Your task to perform on an android device: Go to battery settings Image 0: 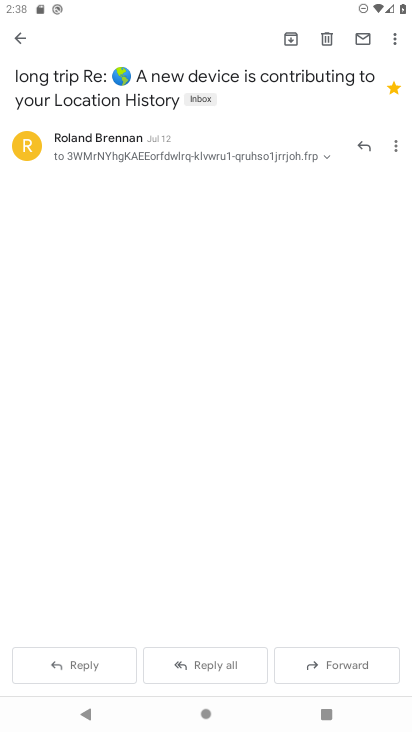
Step 0: click (203, 716)
Your task to perform on an android device: Go to battery settings Image 1: 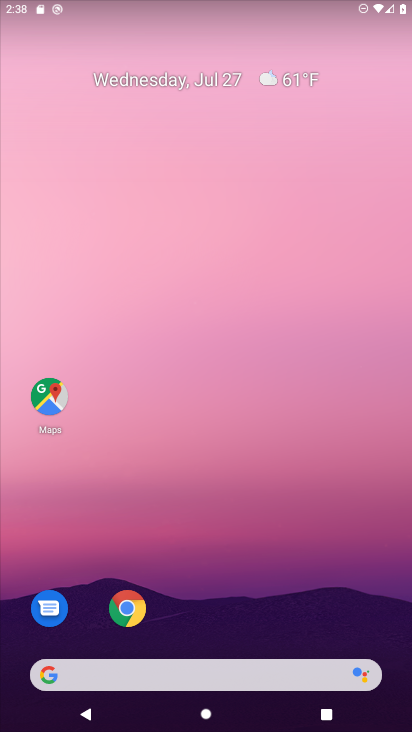
Step 1: drag from (228, 603) to (254, 532)
Your task to perform on an android device: Go to battery settings Image 2: 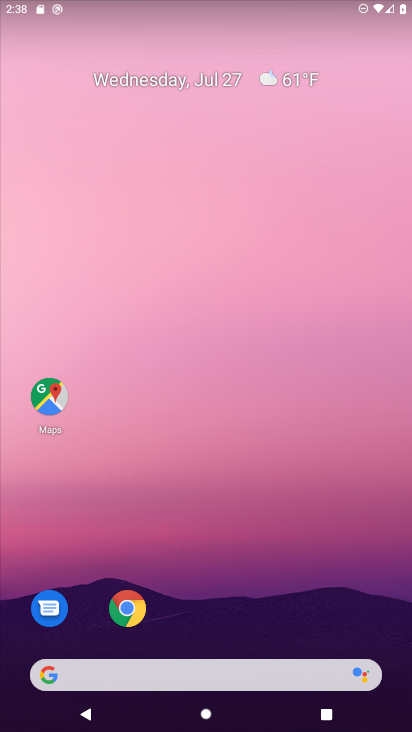
Step 2: drag from (203, 632) to (115, 239)
Your task to perform on an android device: Go to battery settings Image 3: 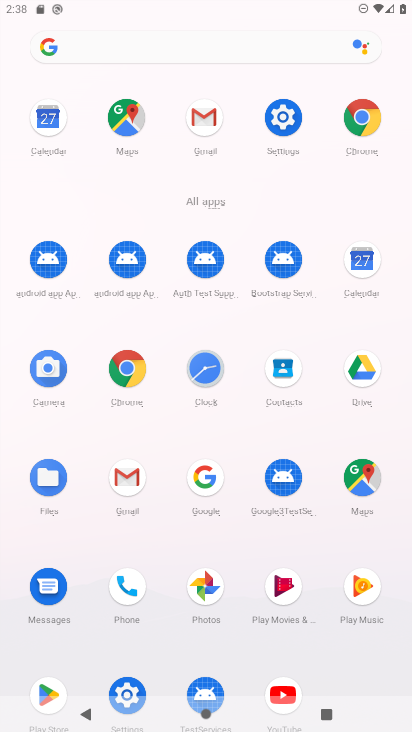
Step 3: click (275, 118)
Your task to perform on an android device: Go to battery settings Image 4: 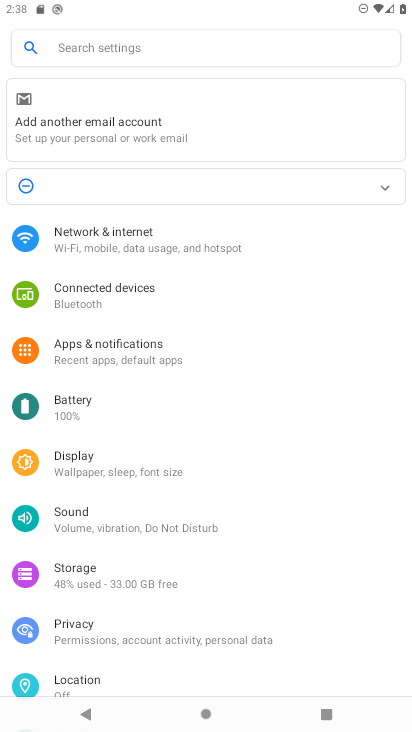
Step 4: click (83, 399)
Your task to perform on an android device: Go to battery settings Image 5: 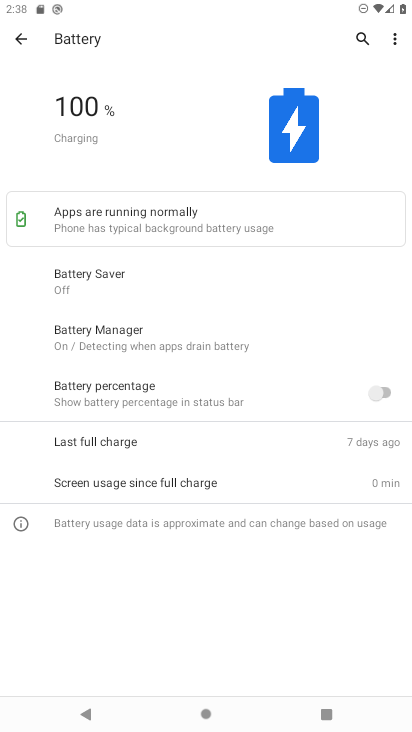
Step 5: task complete